Your task to perform on an android device: see creations saved in the google photos Image 0: 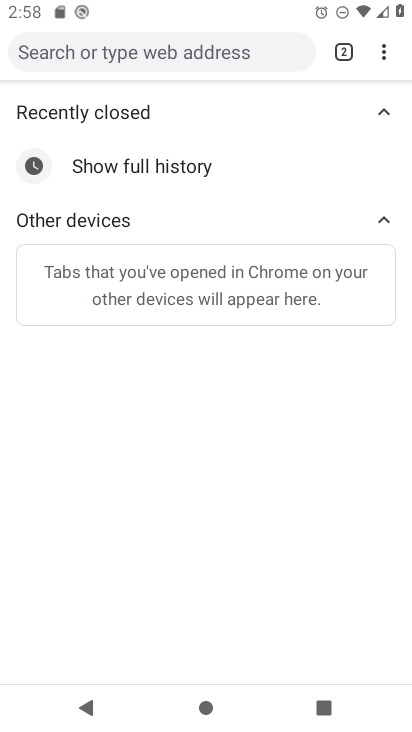
Step 0: press home button
Your task to perform on an android device: see creations saved in the google photos Image 1: 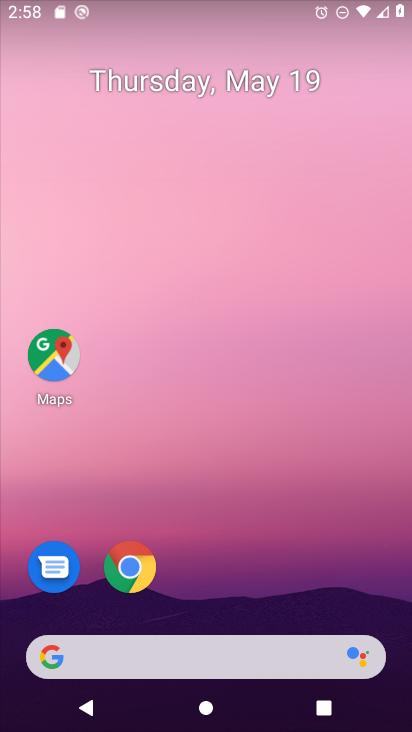
Step 1: drag from (276, 552) to (298, 69)
Your task to perform on an android device: see creations saved in the google photos Image 2: 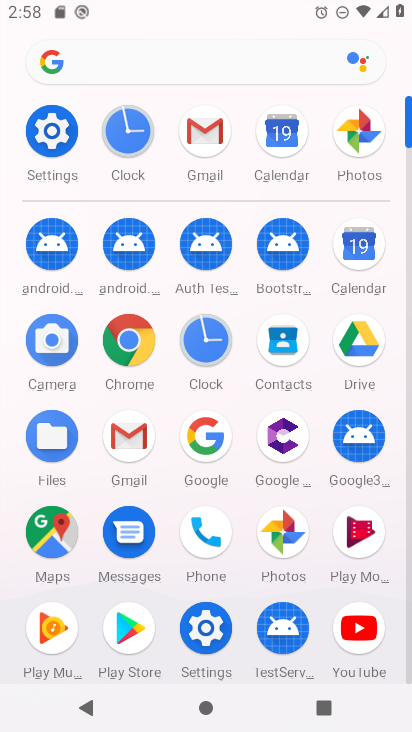
Step 2: click (358, 130)
Your task to perform on an android device: see creations saved in the google photos Image 3: 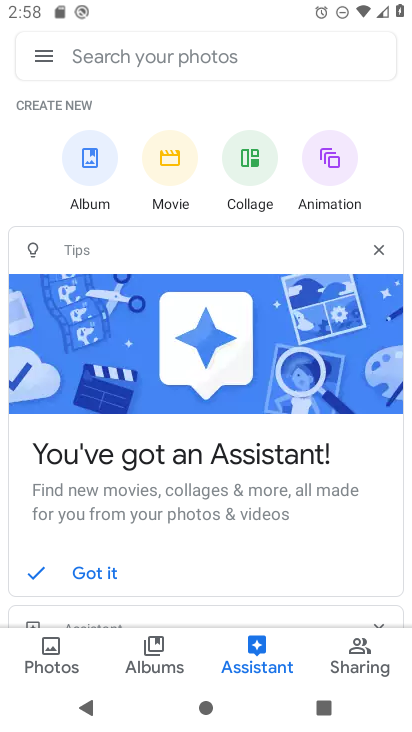
Step 3: click (241, 50)
Your task to perform on an android device: see creations saved in the google photos Image 4: 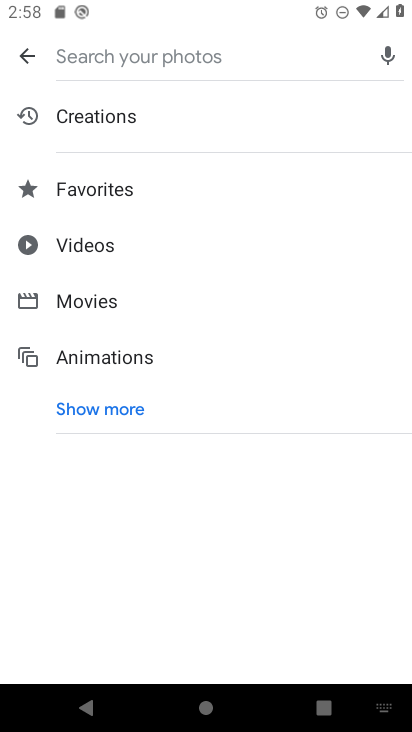
Step 4: click (128, 403)
Your task to perform on an android device: see creations saved in the google photos Image 5: 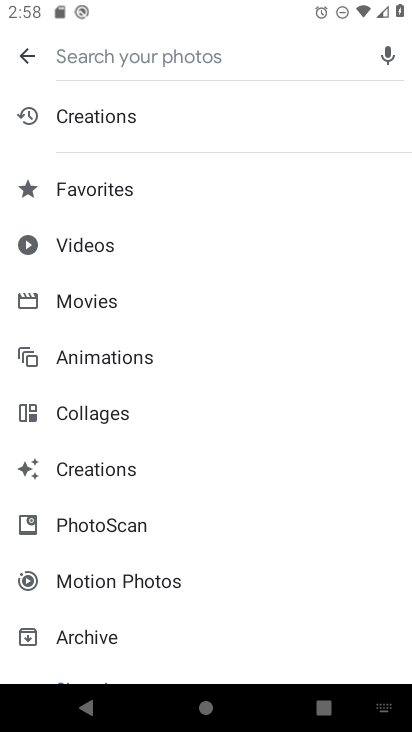
Step 5: click (121, 462)
Your task to perform on an android device: see creations saved in the google photos Image 6: 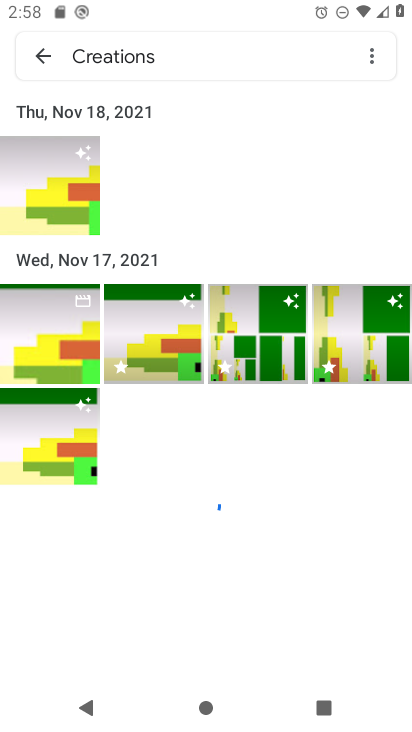
Step 6: task complete